Your task to perform on an android device: turn on airplane mode Image 0: 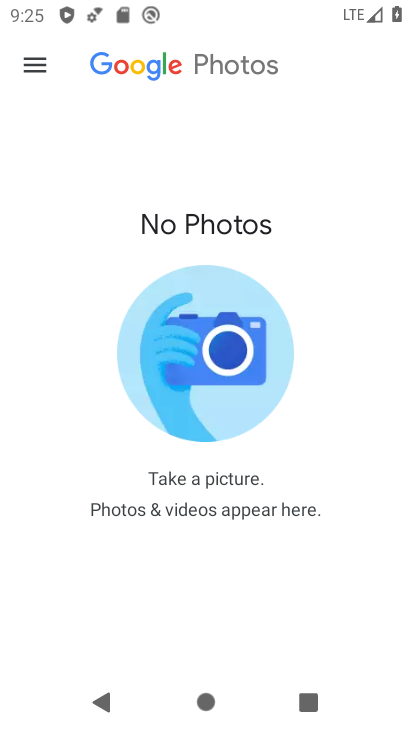
Step 0: press home button
Your task to perform on an android device: turn on airplane mode Image 1: 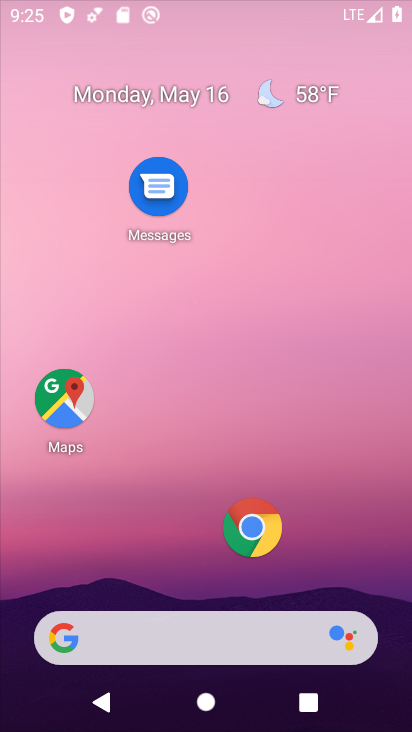
Step 1: drag from (177, 553) to (155, 87)
Your task to perform on an android device: turn on airplane mode Image 2: 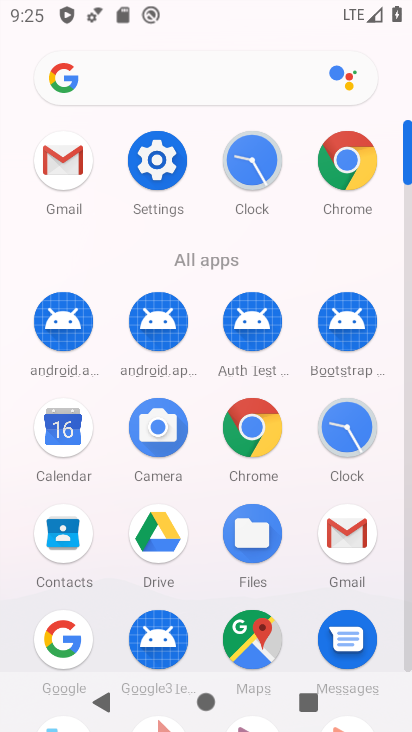
Step 2: click (161, 147)
Your task to perform on an android device: turn on airplane mode Image 3: 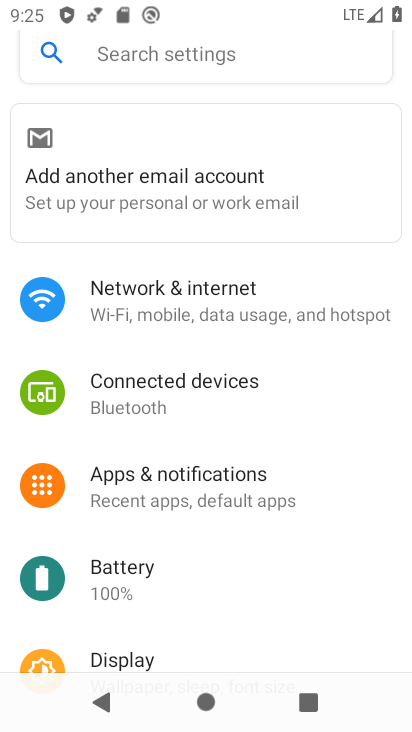
Step 3: click (201, 311)
Your task to perform on an android device: turn on airplane mode Image 4: 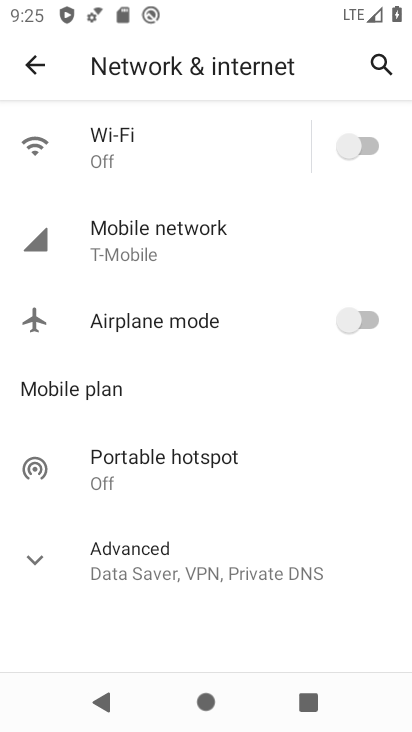
Step 4: click (343, 322)
Your task to perform on an android device: turn on airplane mode Image 5: 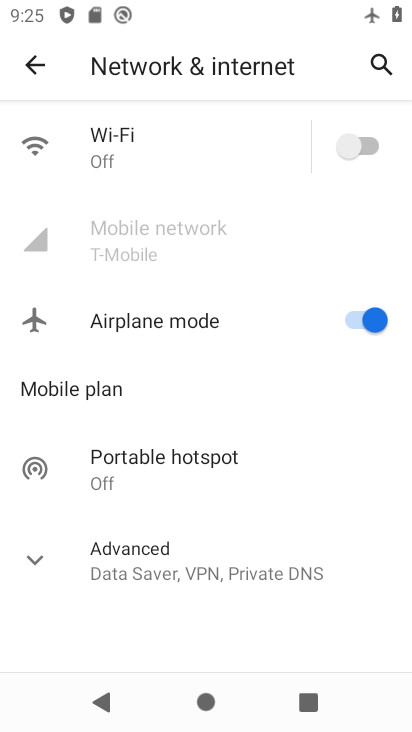
Step 5: task complete